Your task to perform on an android device: Search for seafood restaurants on Google Maps Image 0: 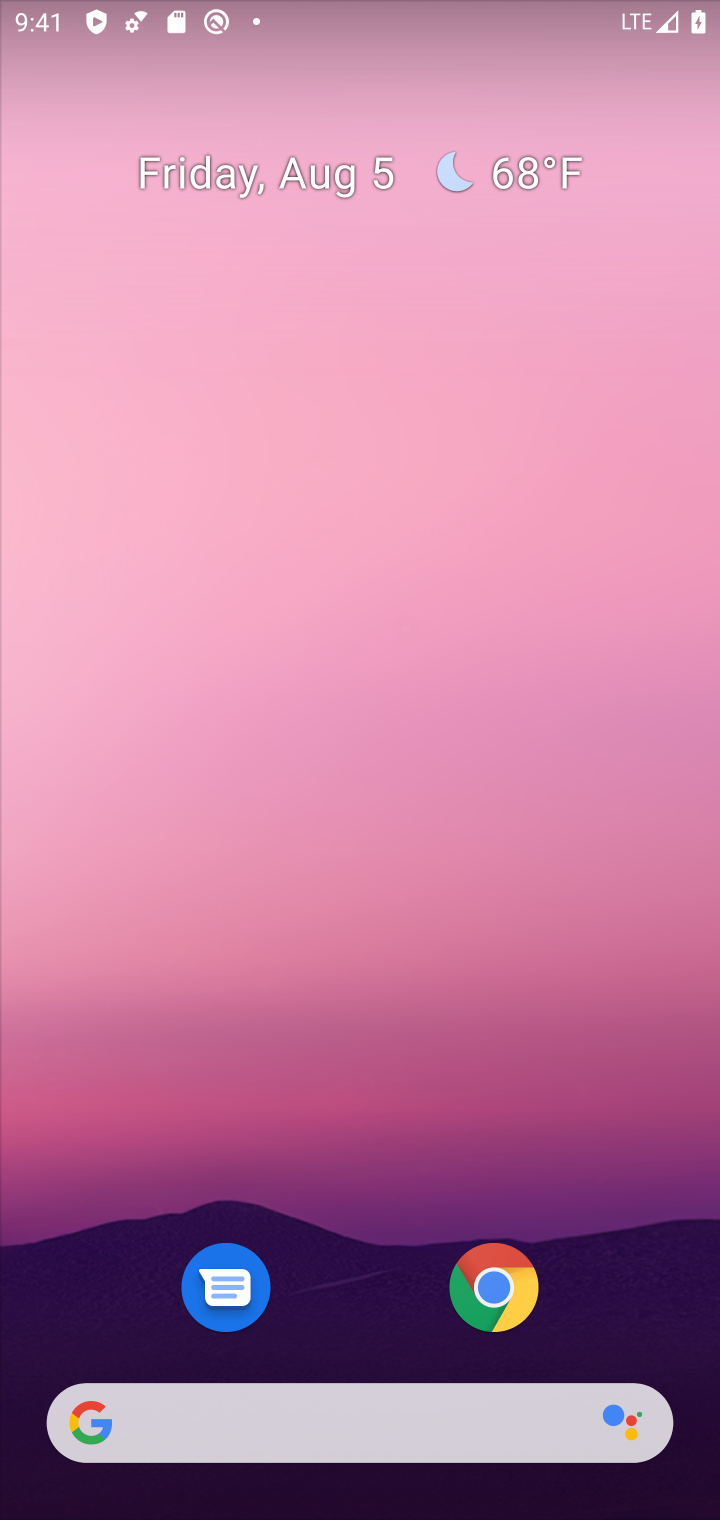
Step 0: drag from (361, 1332) to (352, 239)
Your task to perform on an android device: Search for seafood restaurants on Google Maps Image 1: 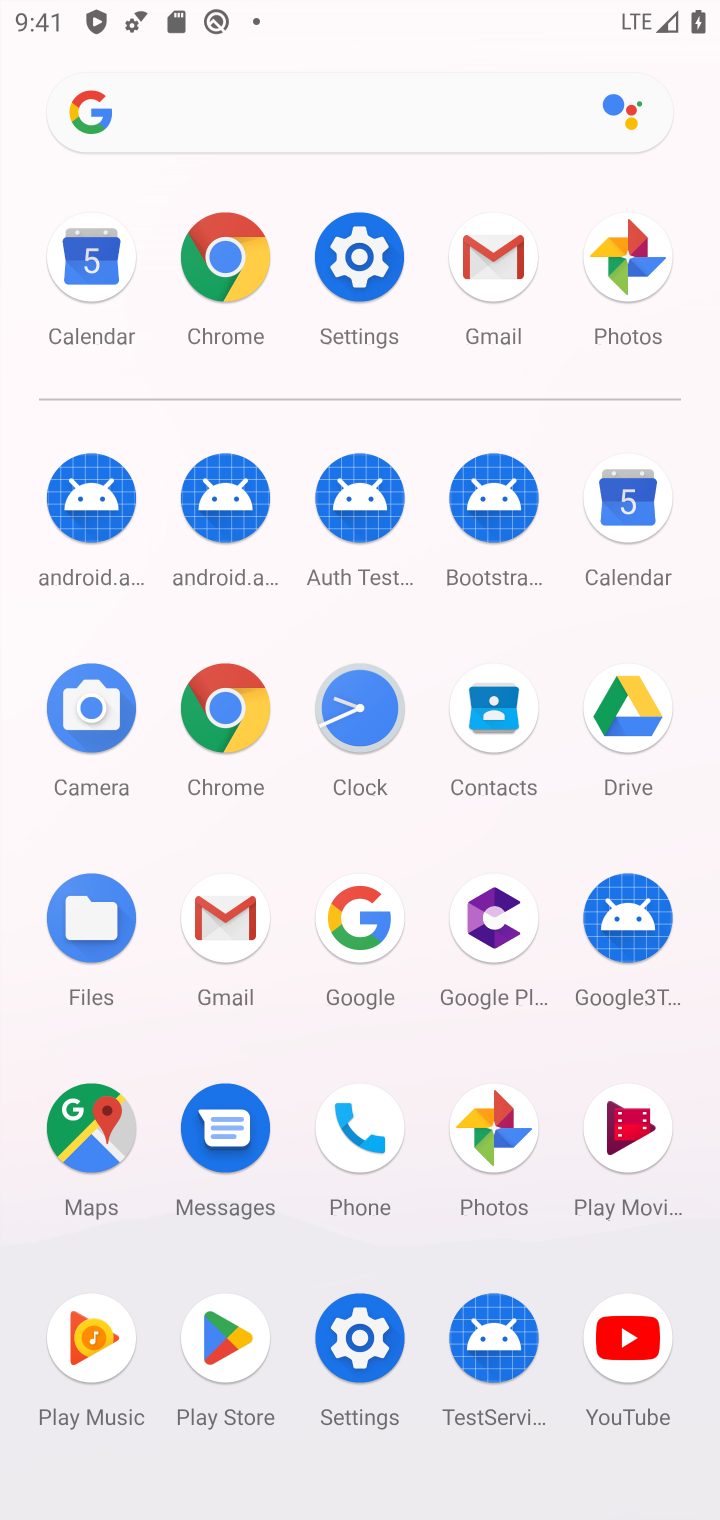
Step 1: click (93, 1130)
Your task to perform on an android device: Search for seafood restaurants on Google Maps Image 2: 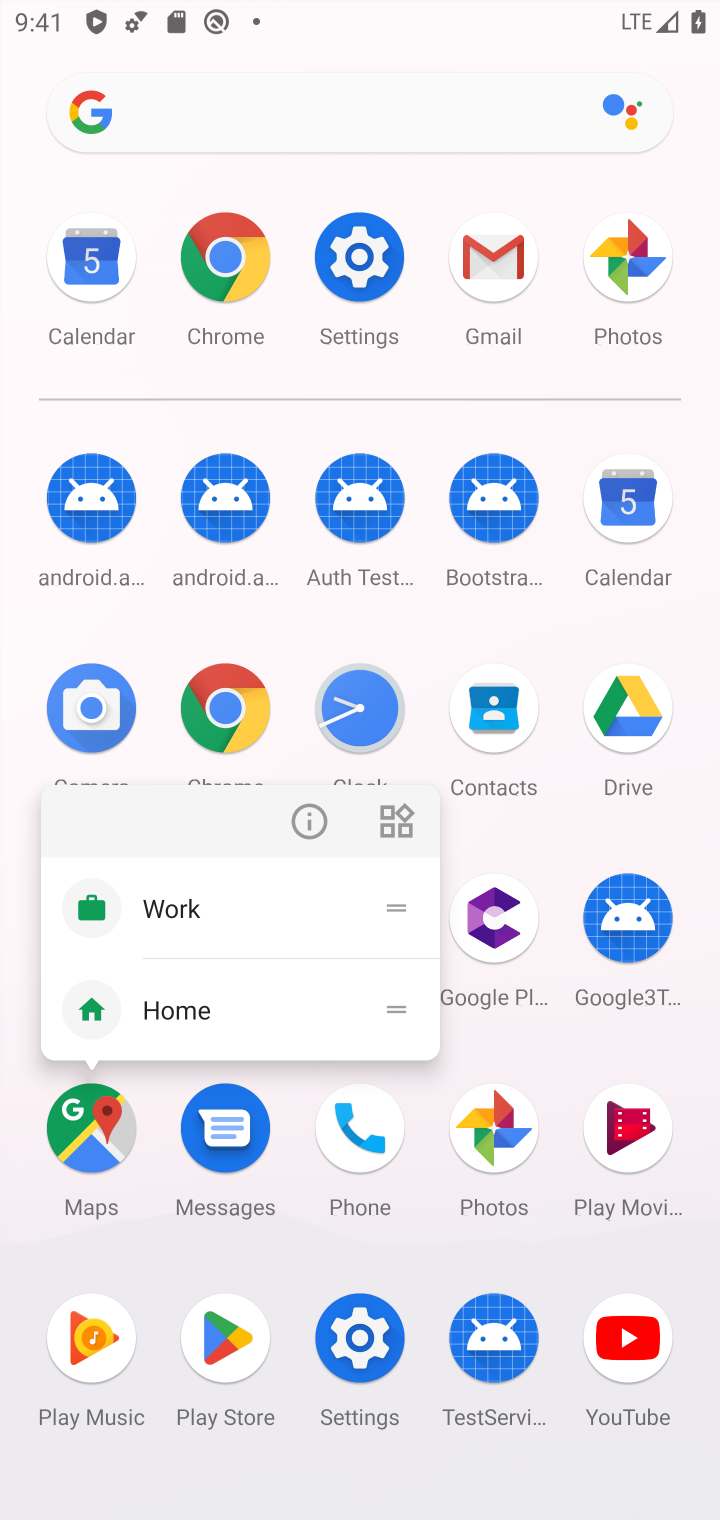
Step 2: click (91, 1130)
Your task to perform on an android device: Search for seafood restaurants on Google Maps Image 3: 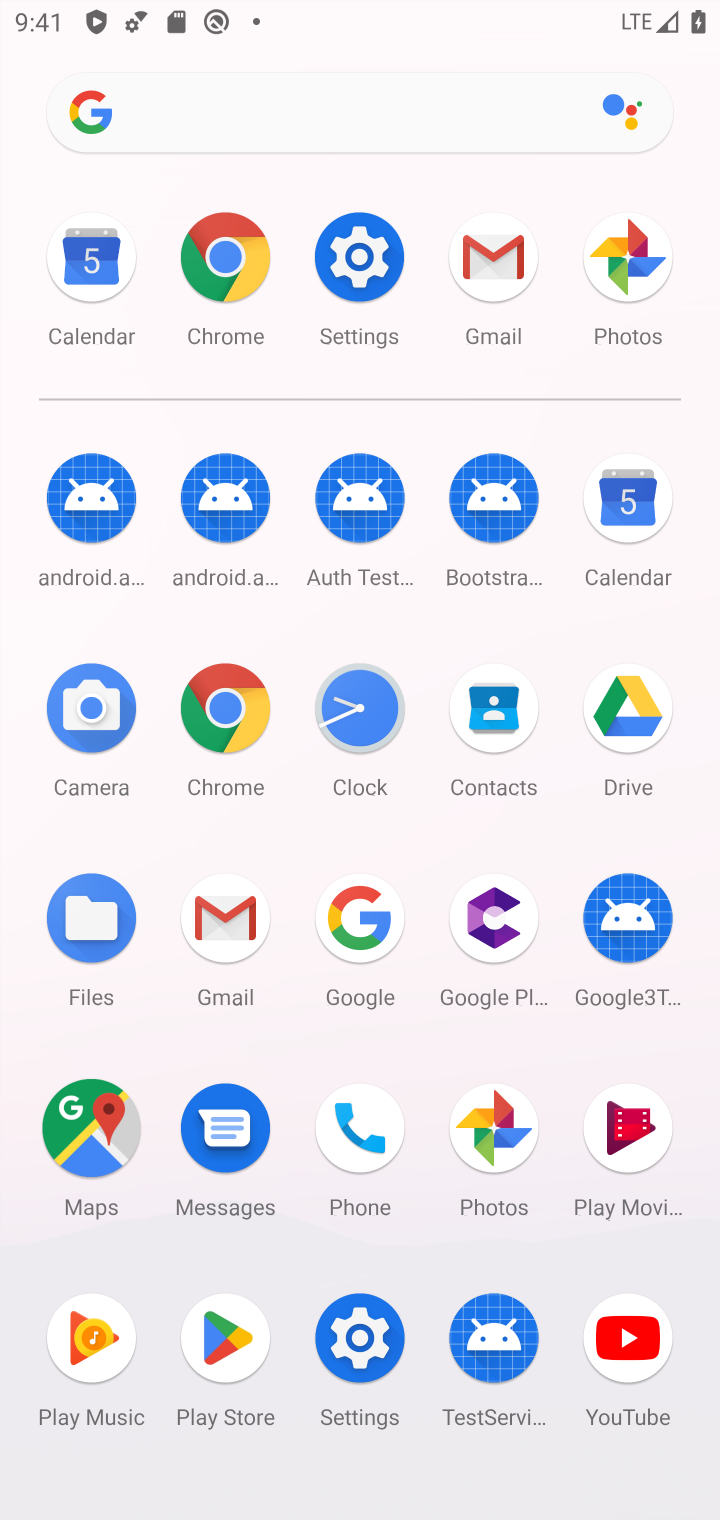
Step 3: click (89, 1132)
Your task to perform on an android device: Search for seafood restaurants on Google Maps Image 4: 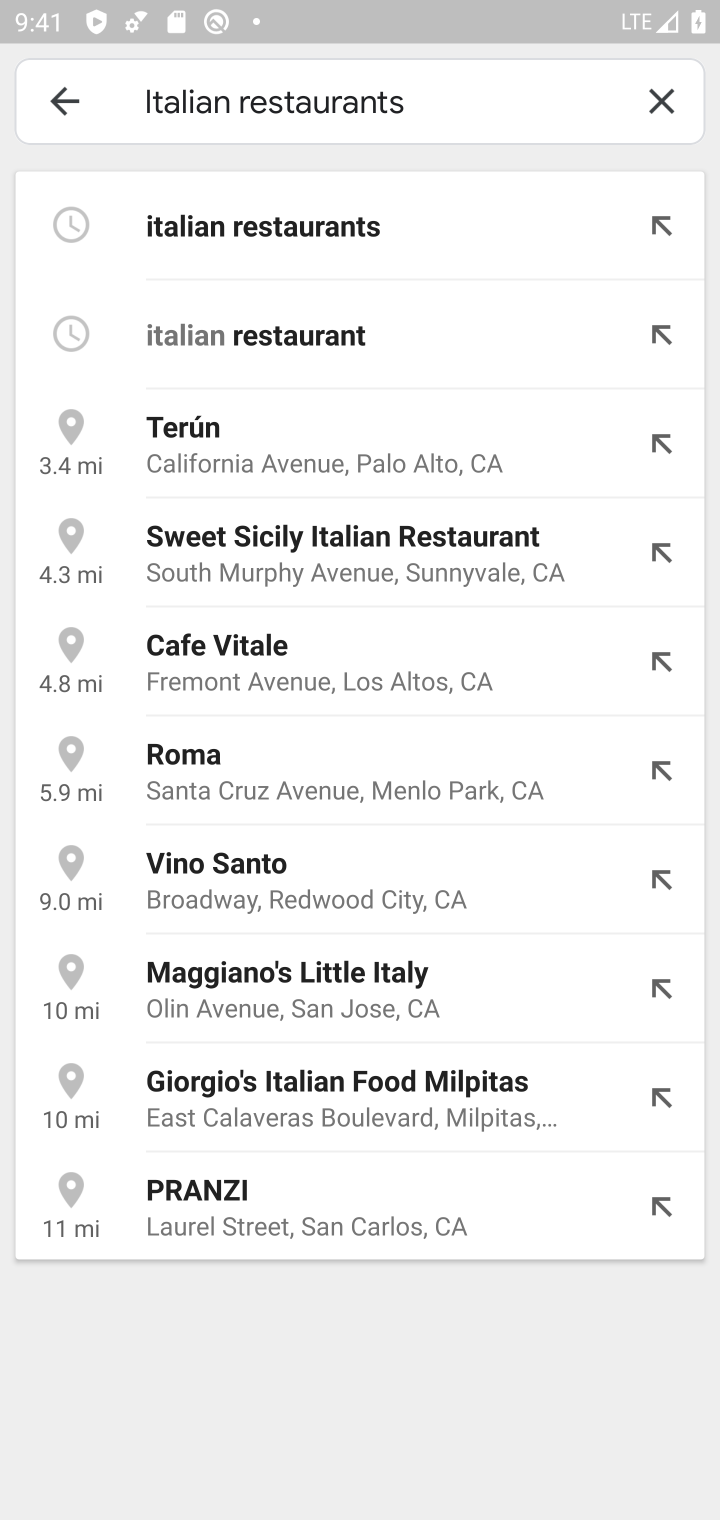
Step 4: click (660, 95)
Your task to perform on an android device: Search for seafood restaurants on Google Maps Image 5: 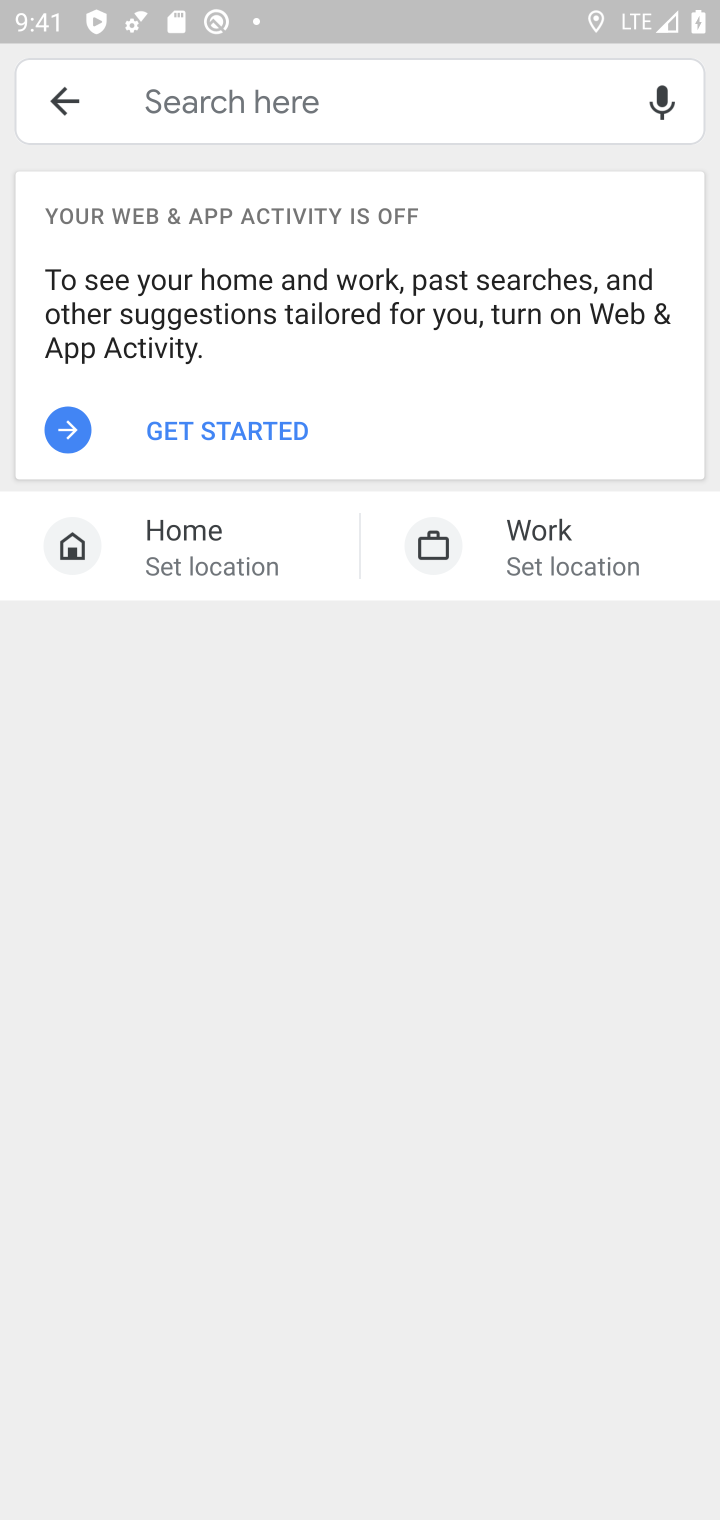
Step 5: click (522, 103)
Your task to perform on an android device: Search for seafood restaurants on Google Maps Image 6: 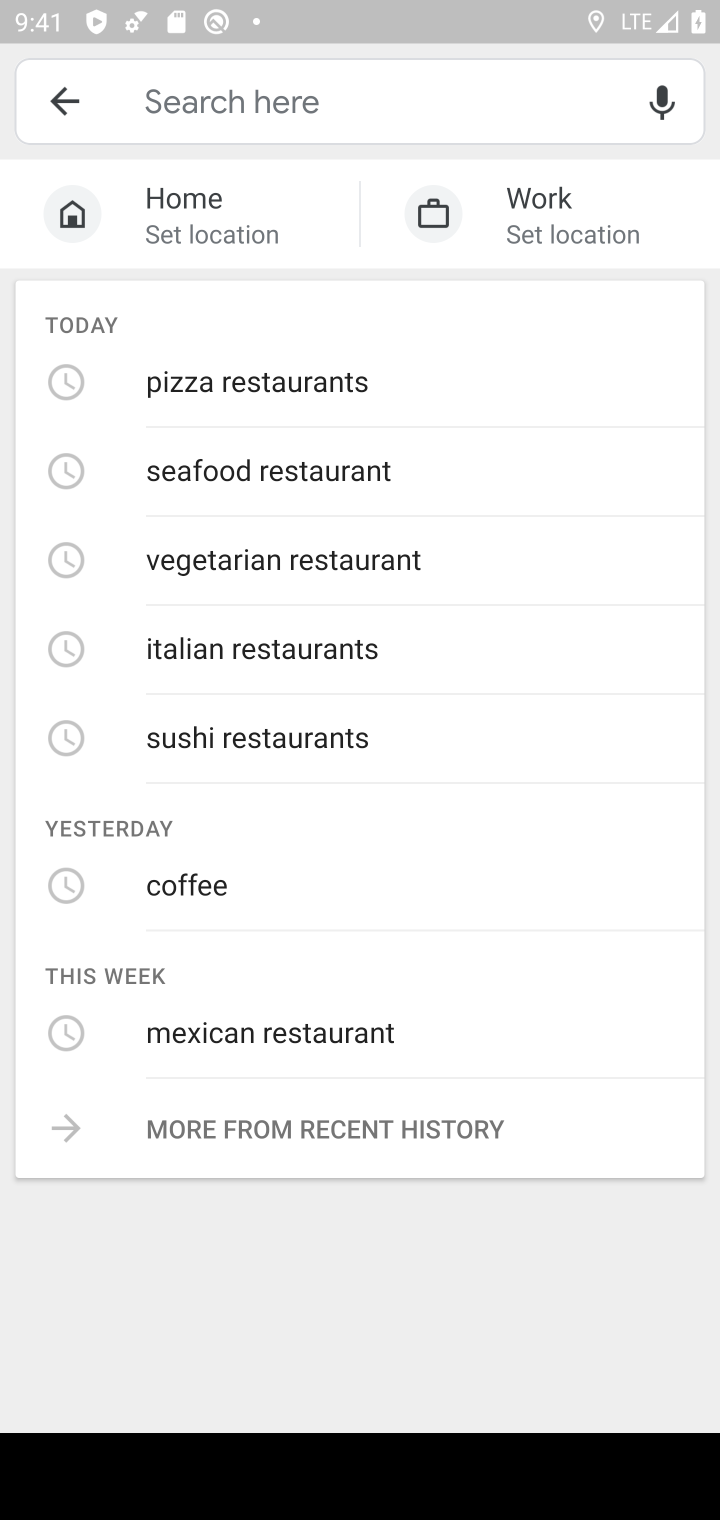
Step 6: type "seafood restaurants"
Your task to perform on an android device: Search for seafood restaurants on Google Maps Image 7: 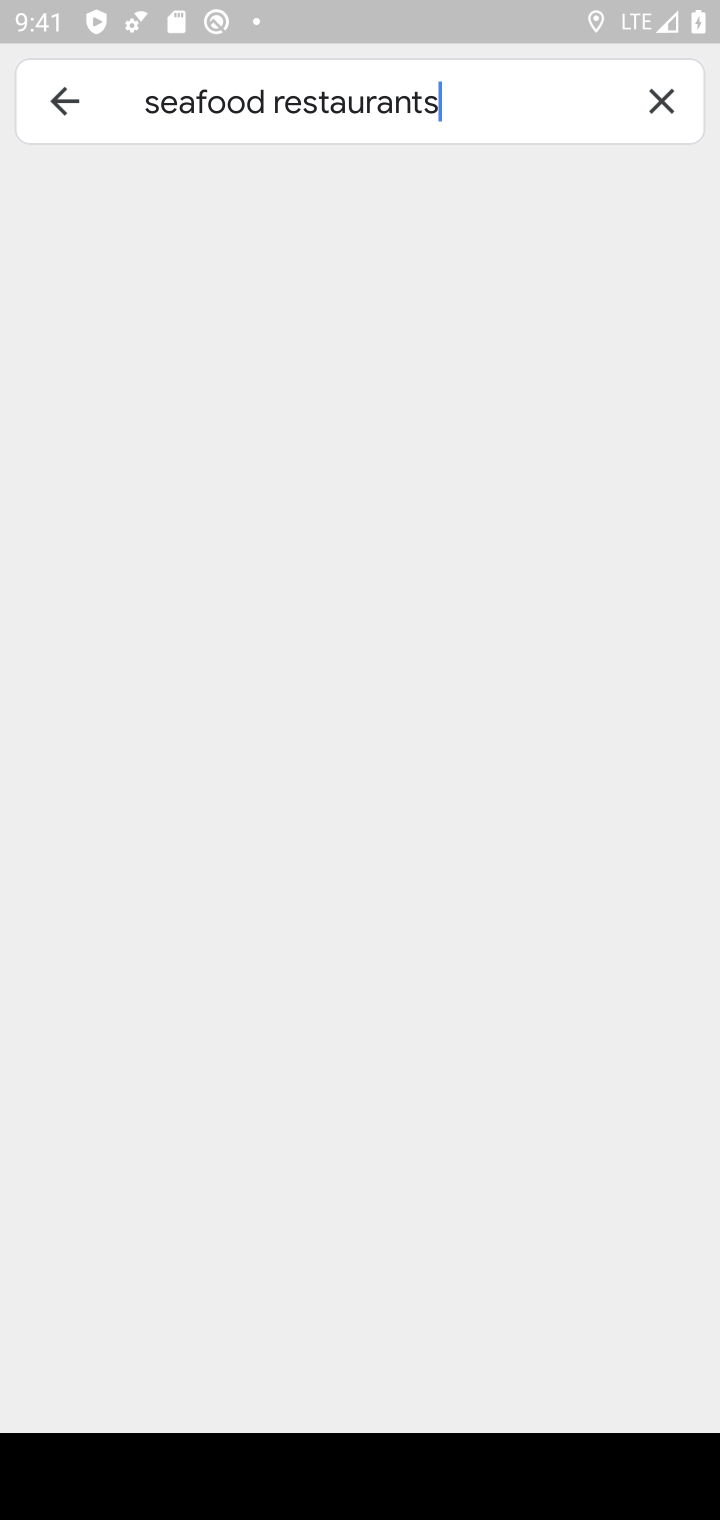
Step 7: type ""
Your task to perform on an android device: Search for seafood restaurants on Google Maps Image 8: 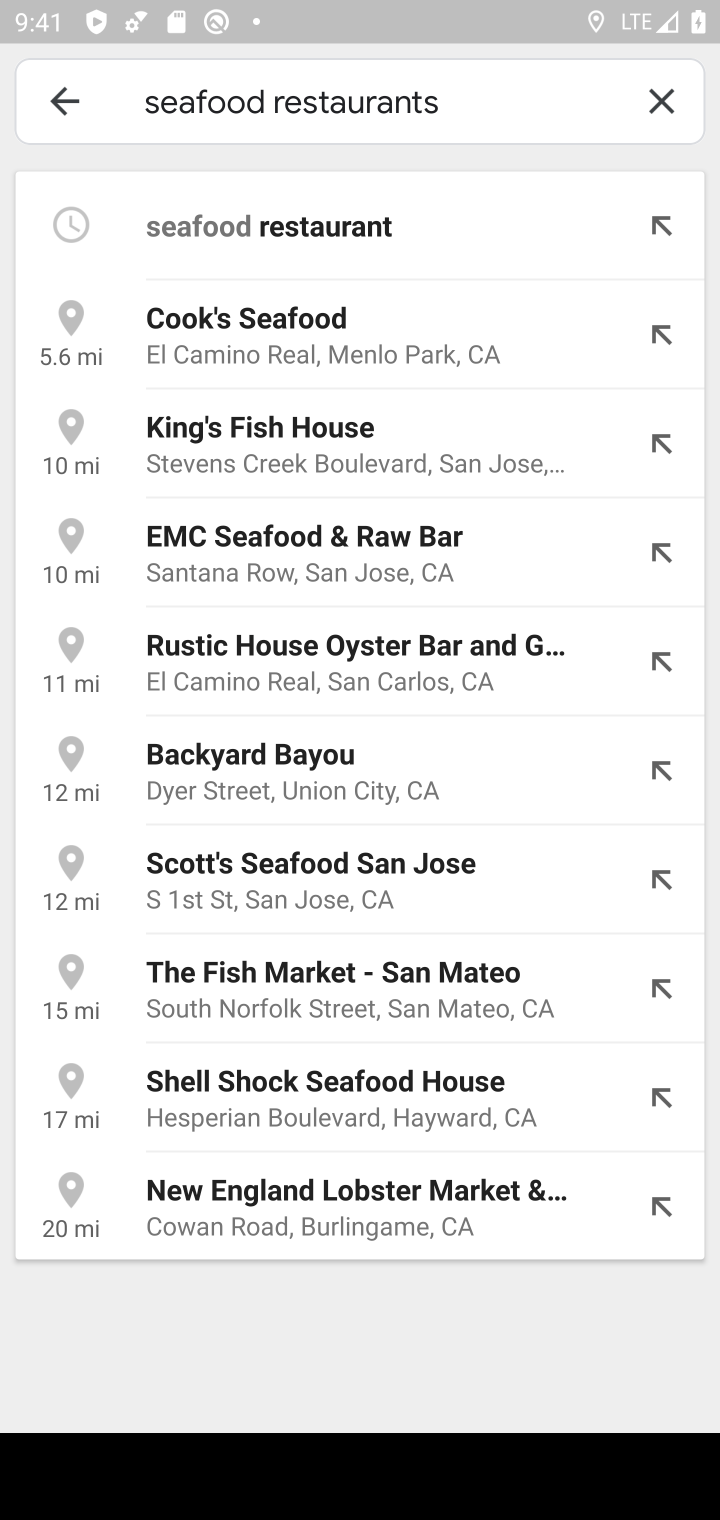
Step 8: click (265, 227)
Your task to perform on an android device: Search for seafood restaurants on Google Maps Image 9: 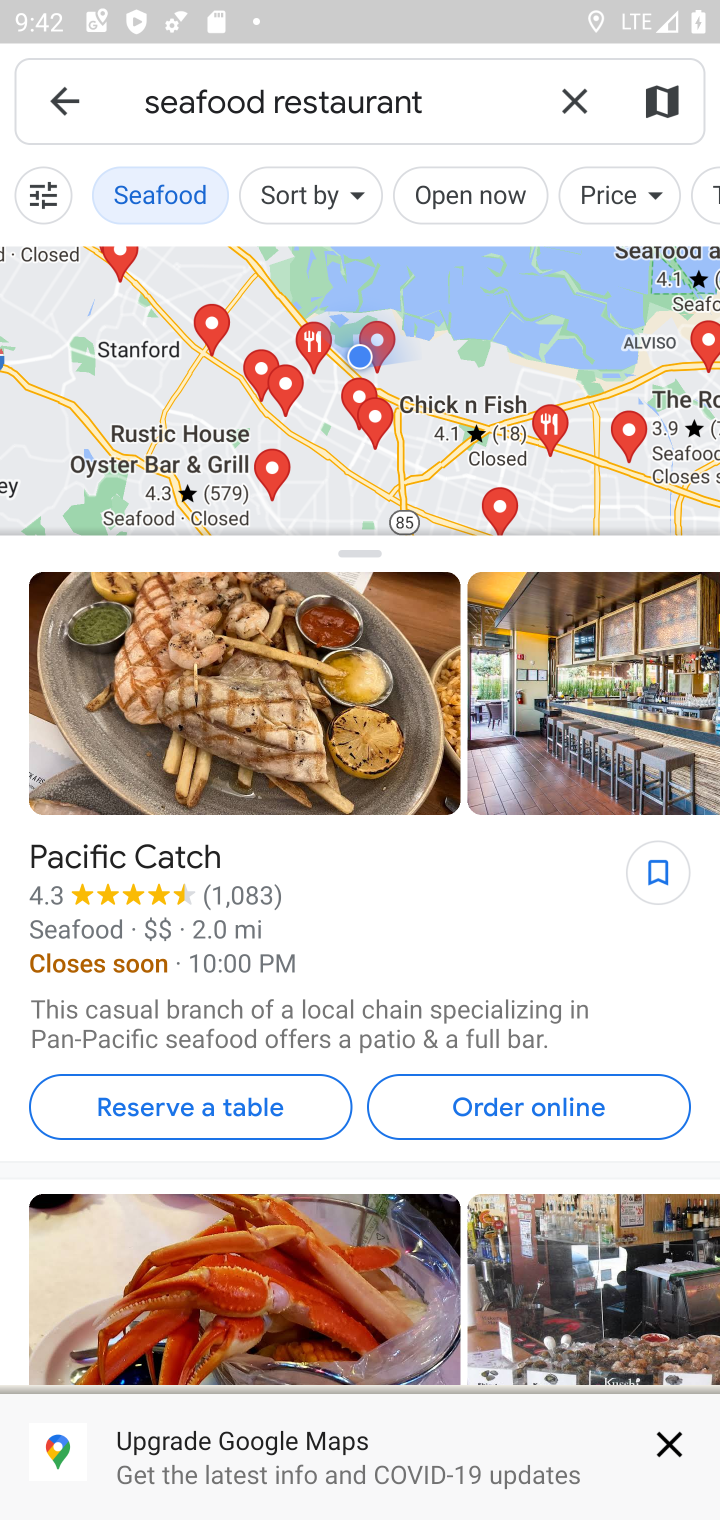
Step 9: task complete